Your task to perform on an android device: Open Reddit.com Image 0: 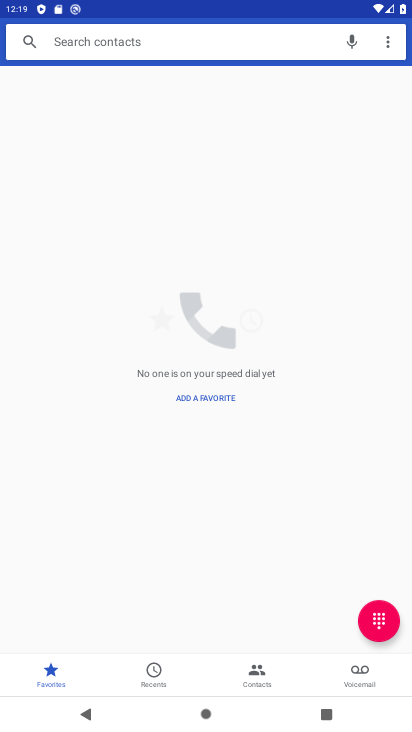
Step 0: press home button
Your task to perform on an android device: Open Reddit.com Image 1: 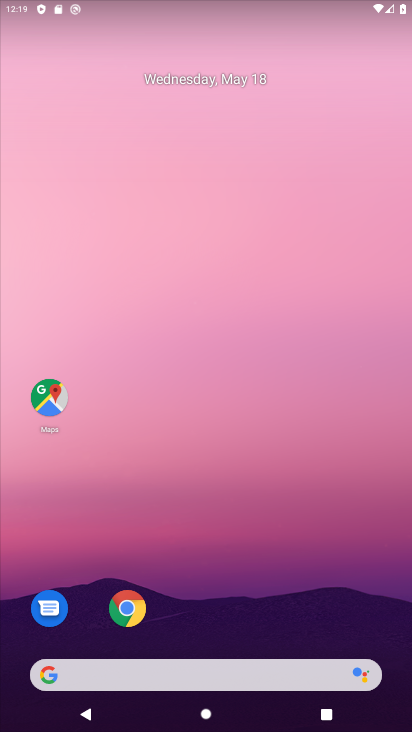
Step 1: click (236, 683)
Your task to perform on an android device: Open Reddit.com Image 2: 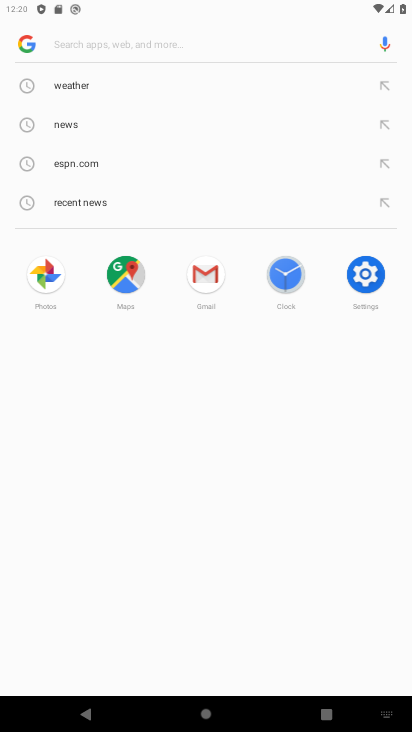
Step 2: type "Reddit.com"
Your task to perform on an android device: Open Reddit.com Image 3: 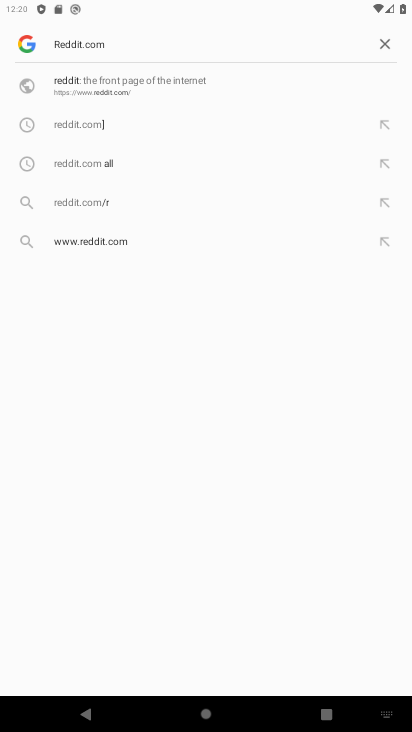
Step 3: click (181, 81)
Your task to perform on an android device: Open Reddit.com Image 4: 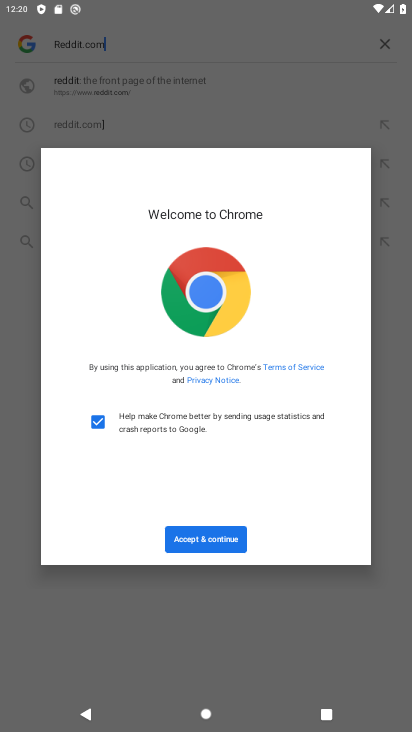
Step 4: click (240, 551)
Your task to perform on an android device: Open Reddit.com Image 5: 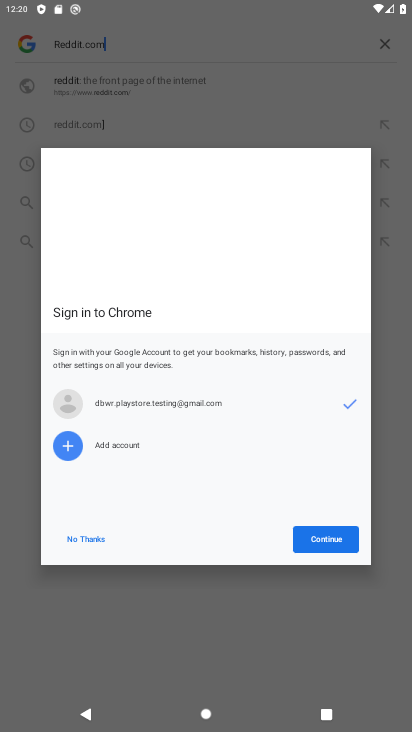
Step 5: click (303, 552)
Your task to perform on an android device: Open Reddit.com Image 6: 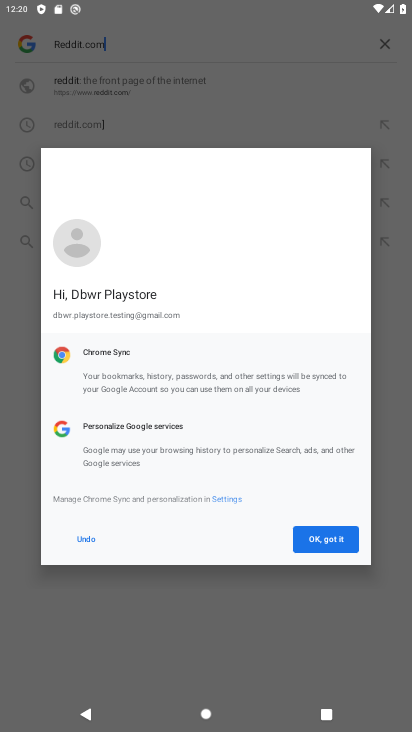
Step 6: click (345, 550)
Your task to perform on an android device: Open Reddit.com Image 7: 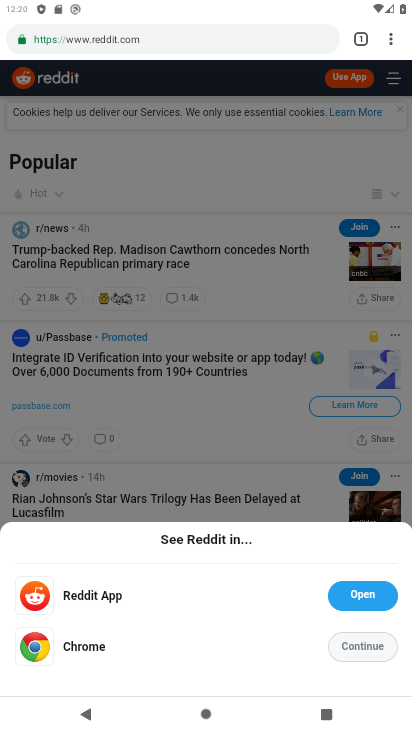
Step 7: click (369, 658)
Your task to perform on an android device: Open Reddit.com Image 8: 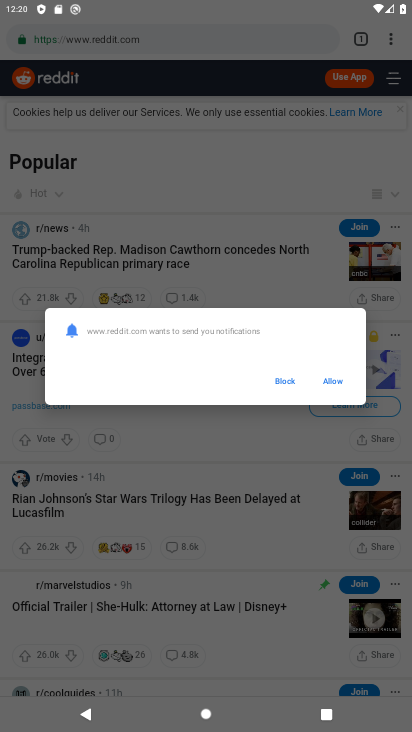
Step 8: click (333, 375)
Your task to perform on an android device: Open Reddit.com Image 9: 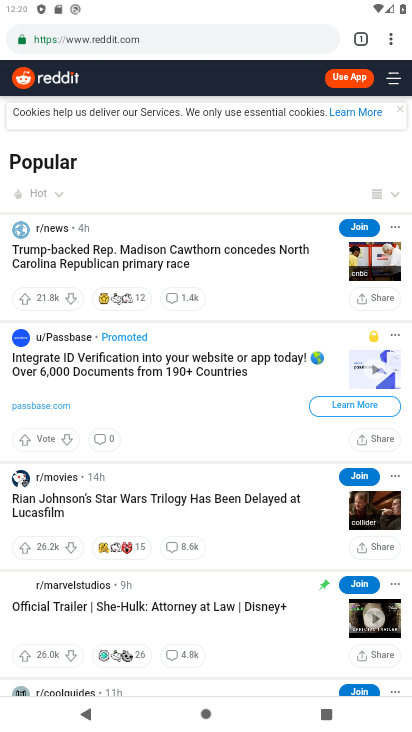
Step 9: task complete